Your task to perform on an android device: set an alarm Image 0: 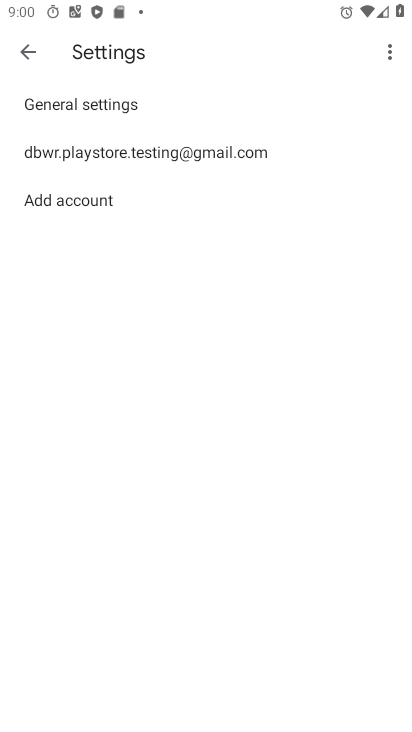
Step 0: press home button
Your task to perform on an android device: set an alarm Image 1: 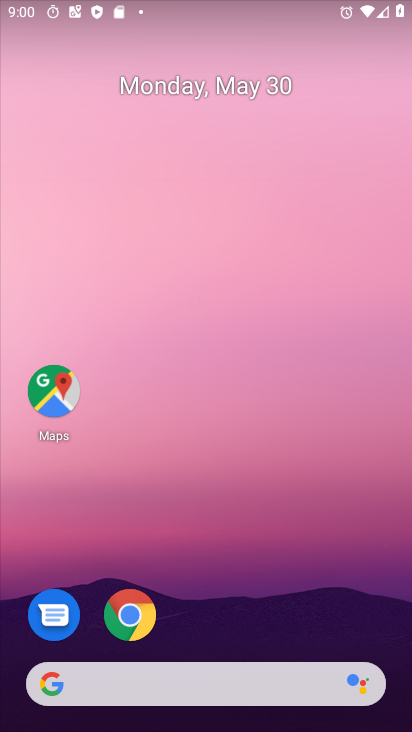
Step 1: drag from (340, 544) to (308, 120)
Your task to perform on an android device: set an alarm Image 2: 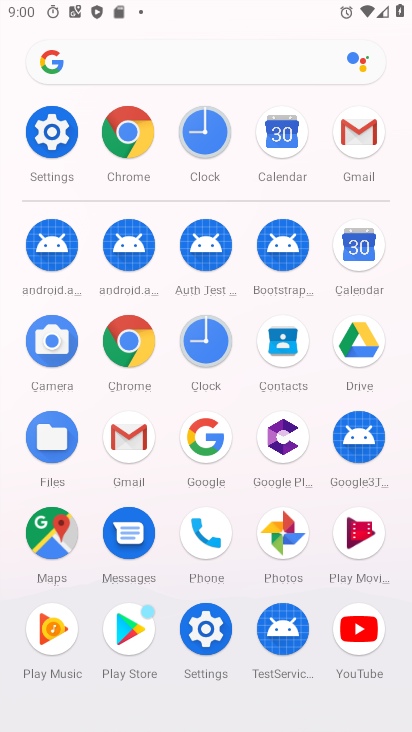
Step 2: click (208, 126)
Your task to perform on an android device: set an alarm Image 3: 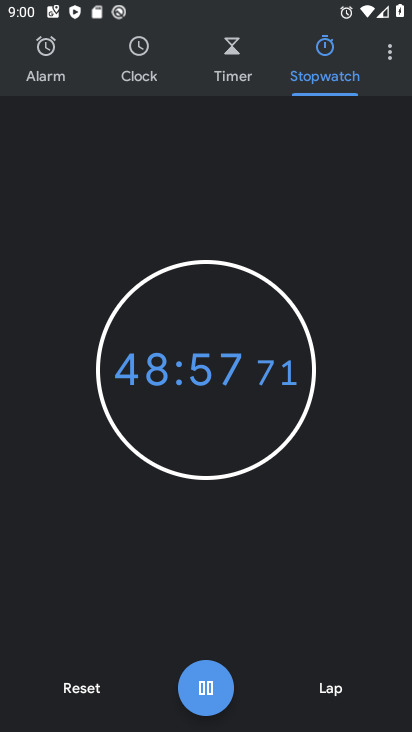
Step 3: click (54, 59)
Your task to perform on an android device: set an alarm Image 4: 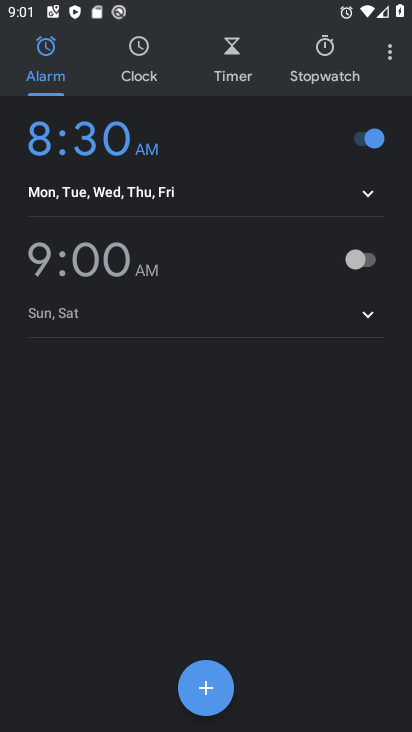
Step 4: click (345, 264)
Your task to perform on an android device: set an alarm Image 5: 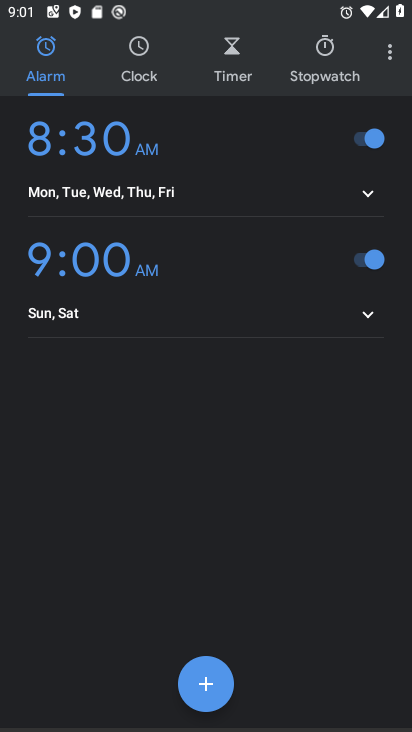
Step 5: task complete